Your task to perform on an android device: turn on translation in the chrome app Image 0: 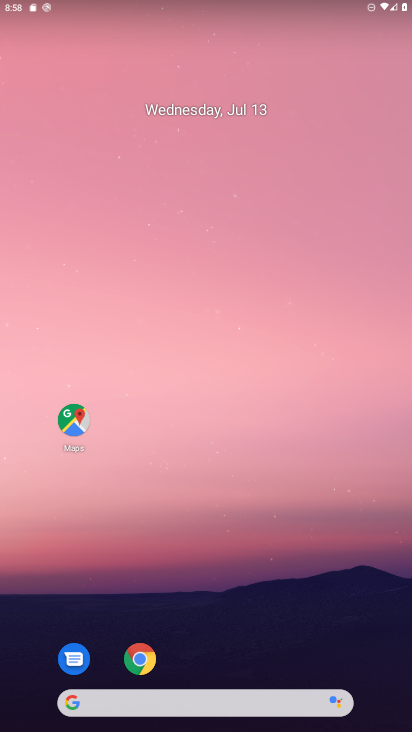
Step 0: drag from (258, 668) to (284, 118)
Your task to perform on an android device: turn on translation in the chrome app Image 1: 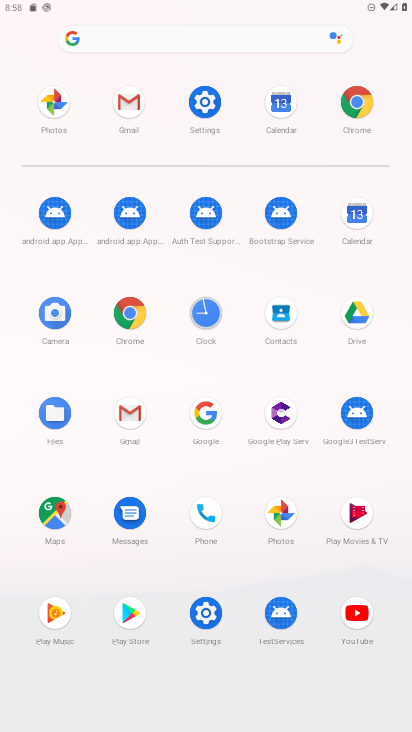
Step 1: click (129, 311)
Your task to perform on an android device: turn on translation in the chrome app Image 2: 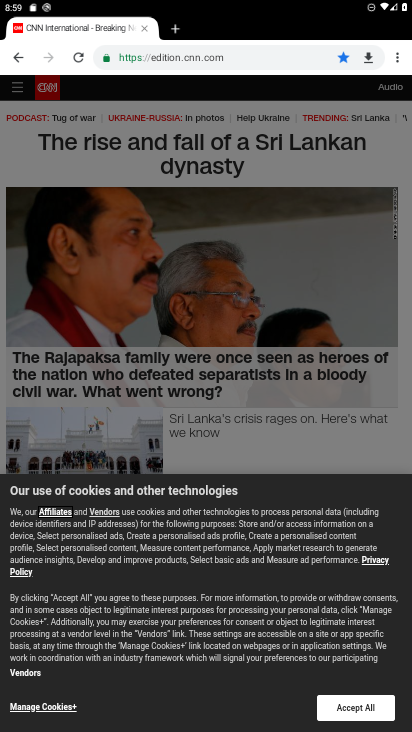
Step 2: click (394, 55)
Your task to perform on an android device: turn on translation in the chrome app Image 3: 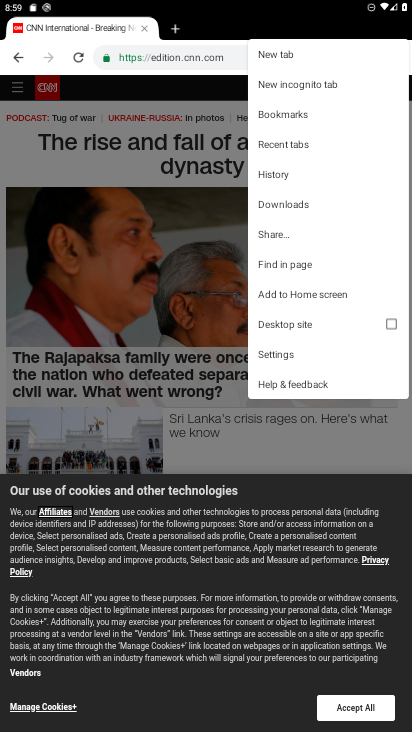
Step 3: click (291, 354)
Your task to perform on an android device: turn on translation in the chrome app Image 4: 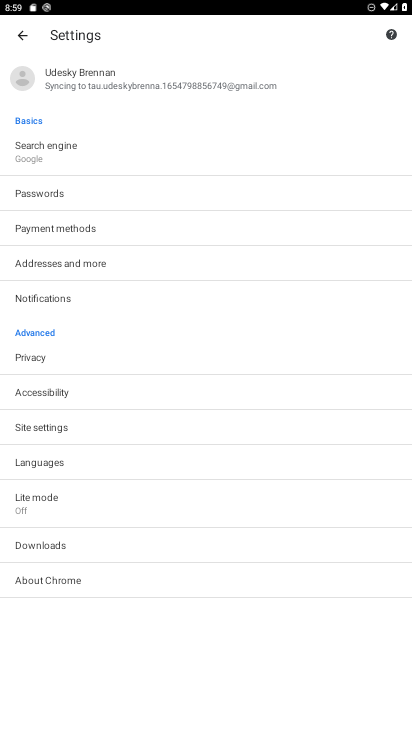
Step 4: click (43, 467)
Your task to perform on an android device: turn on translation in the chrome app Image 5: 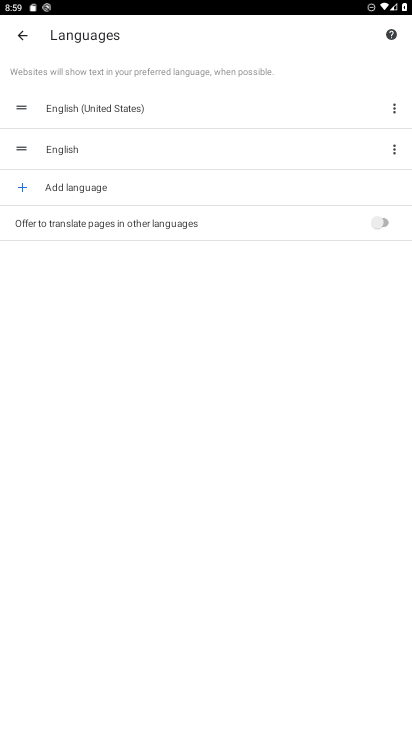
Step 5: click (391, 218)
Your task to perform on an android device: turn on translation in the chrome app Image 6: 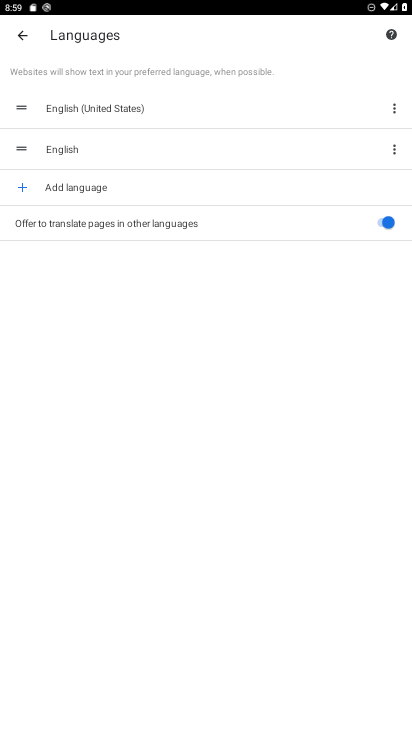
Step 6: task complete